Your task to perform on an android device: move an email to a new category in the gmail app Image 0: 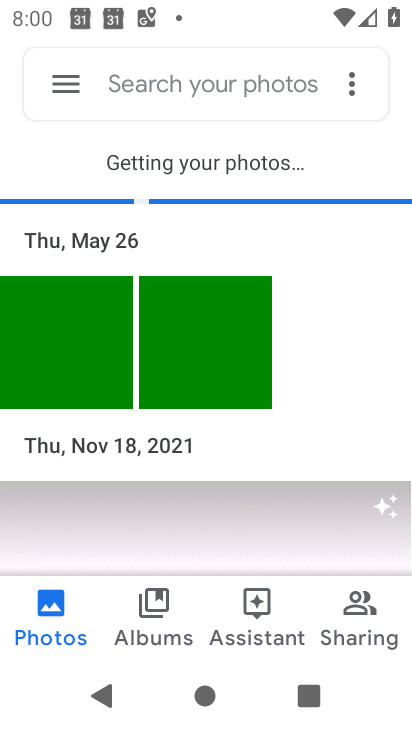
Step 0: press home button
Your task to perform on an android device: move an email to a new category in the gmail app Image 1: 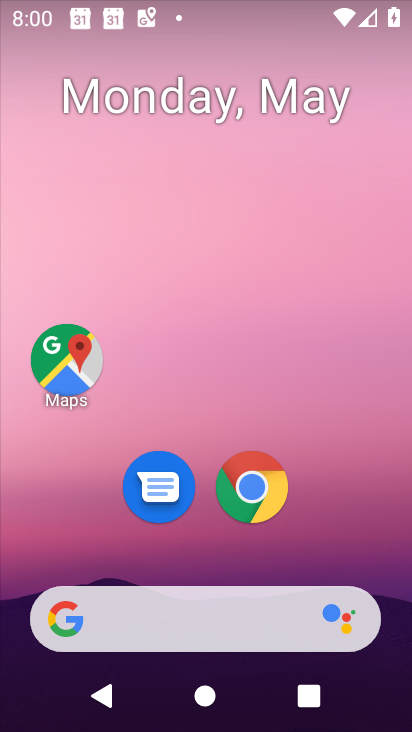
Step 1: drag from (384, 505) to (365, 107)
Your task to perform on an android device: move an email to a new category in the gmail app Image 2: 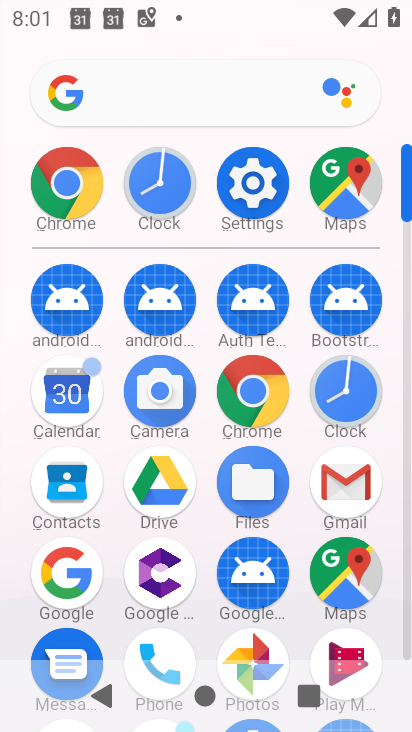
Step 2: click (367, 474)
Your task to perform on an android device: move an email to a new category in the gmail app Image 3: 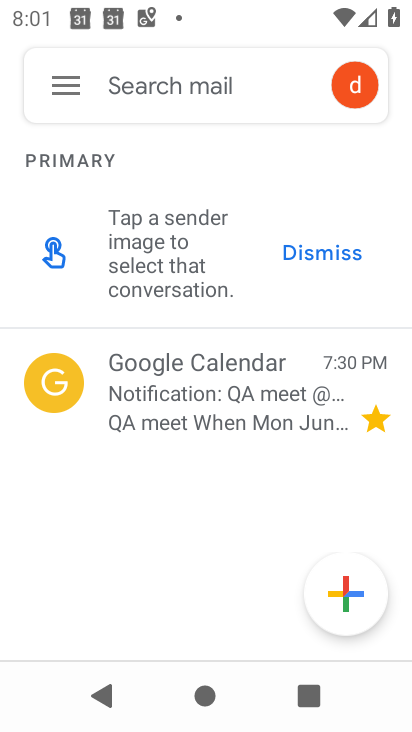
Step 3: click (174, 397)
Your task to perform on an android device: move an email to a new category in the gmail app Image 4: 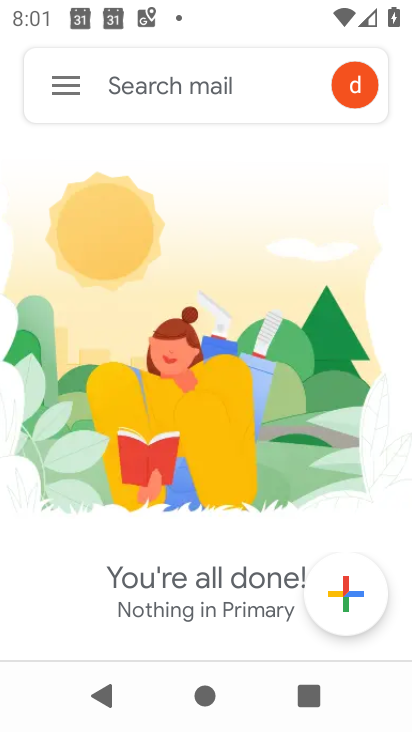
Step 4: click (71, 82)
Your task to perform on an android device: move an email to a new category in the gmail app Image 5: 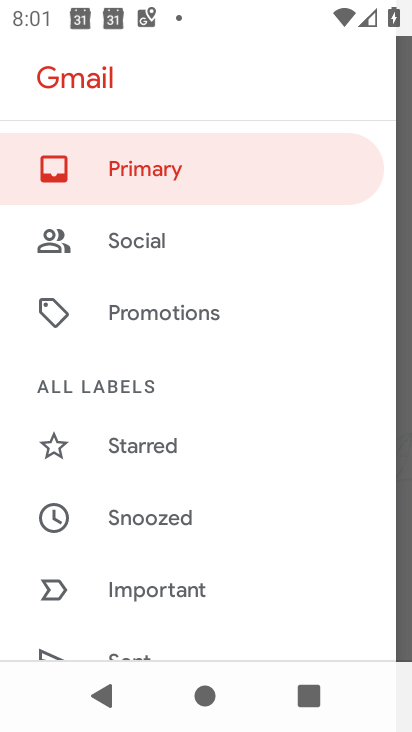
Step 5: drag from (302, 450) to (322, 267)
Your task to perform on an android device: move an email to a new category in the gmail app Image 6: 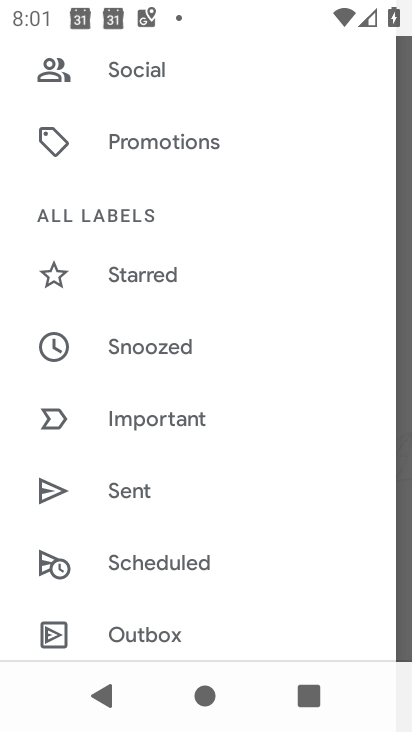
Step 6: drag from (300, 490) to (318, 216)
Your task to perform on an android device: move an email to a new category in the gmail app Image 7: 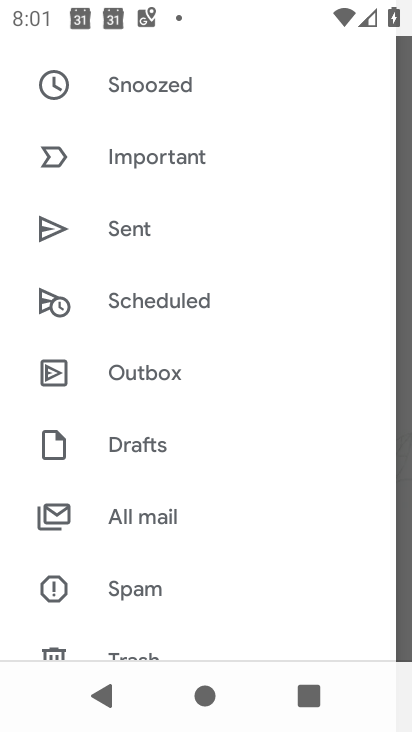
Step 7: drag from (325, 526) to (319, 250)
Your task to perform on an android device: move an email to a new category in the gmail app Image 8: 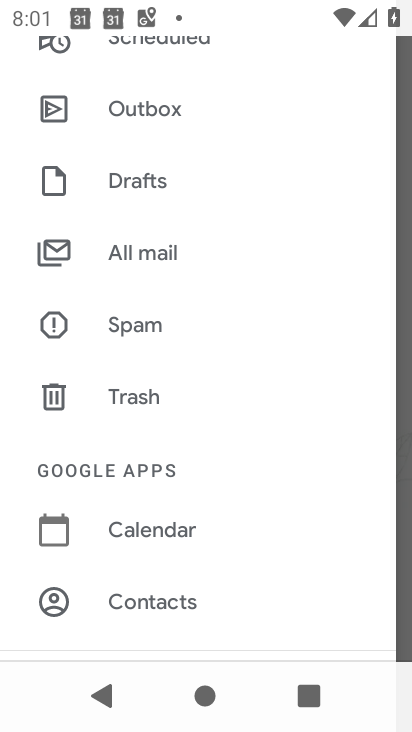
Step 8: drag from (319, 485) to (330, 233)
Your task to perform on an android device: move an email to a new category in the gmail app Image 9: 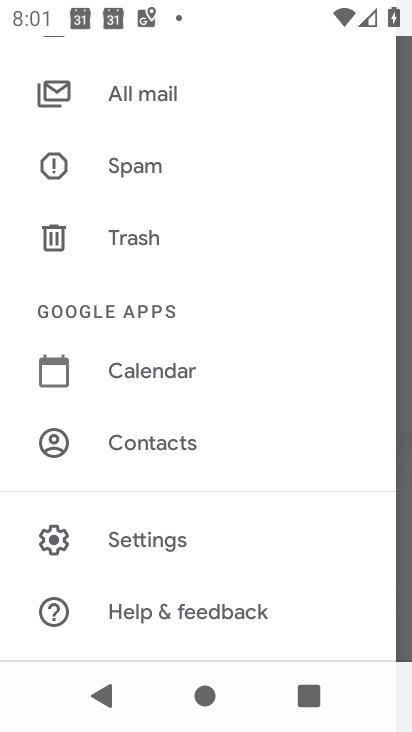
Step 9: drag from (321, 184) to (290, 414)
Your task to perform on an android device: move an email to a new category in the gmail app Image 10: 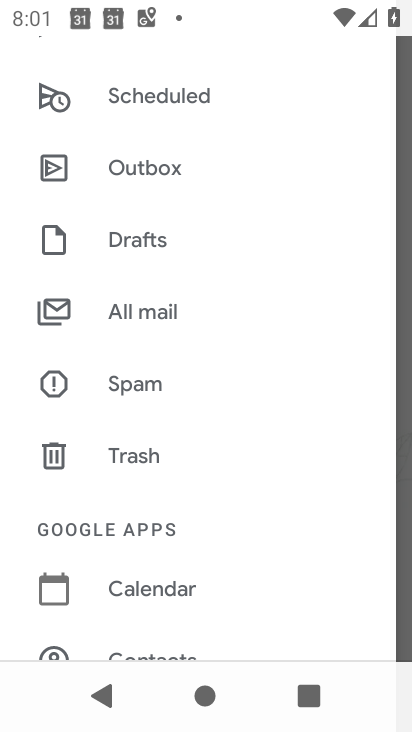
Step 10: drag from (278, 193) to (274, 401)
Your task to perform on an android device: move an email to a new category in the gmail app Image 11: 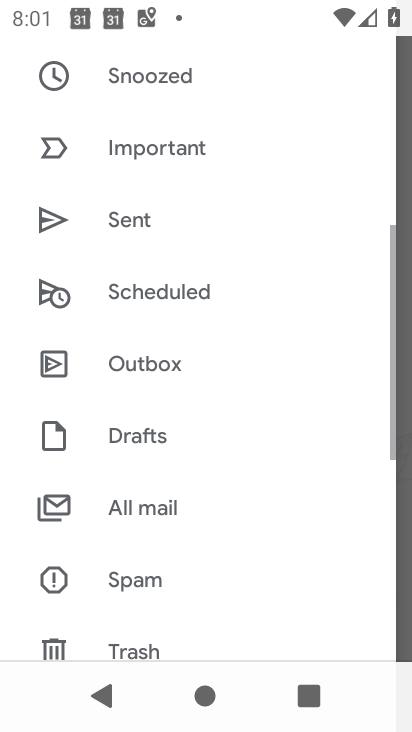
Step 11: drag from (280, 154) to (285, 364)
Your task to perform on an android device: move an email to a new category in the gmail app Image 12: 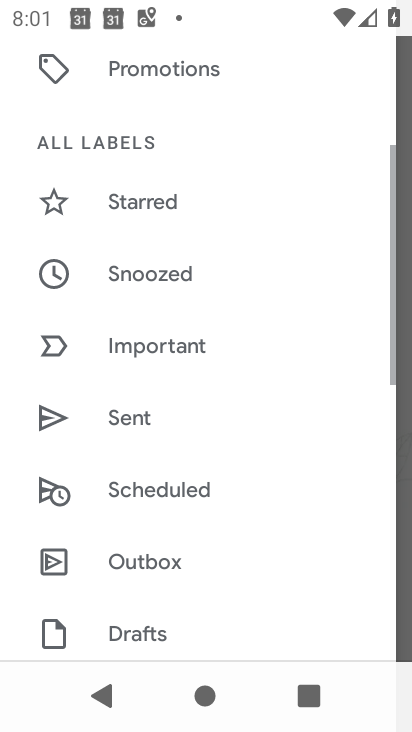
Step 12: drag from (305, 117) to (325, 342)
Your task to perform on an android device: move an email to a new category in the gmail app Image 13: 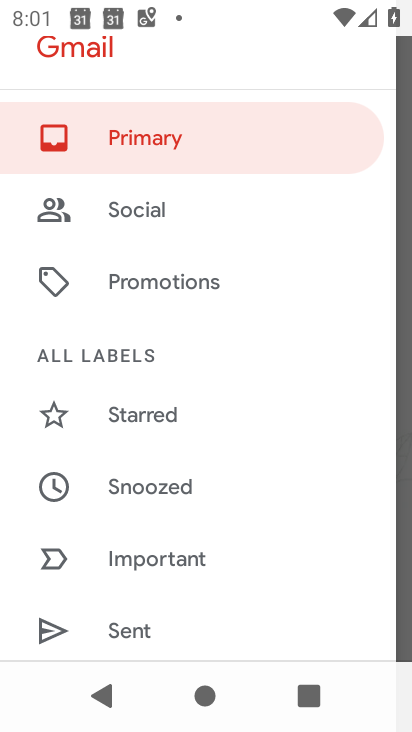
Step 13: click (197, 167)
Your task to perform on an android device: move an email to a new category in the gmail app Image 14: 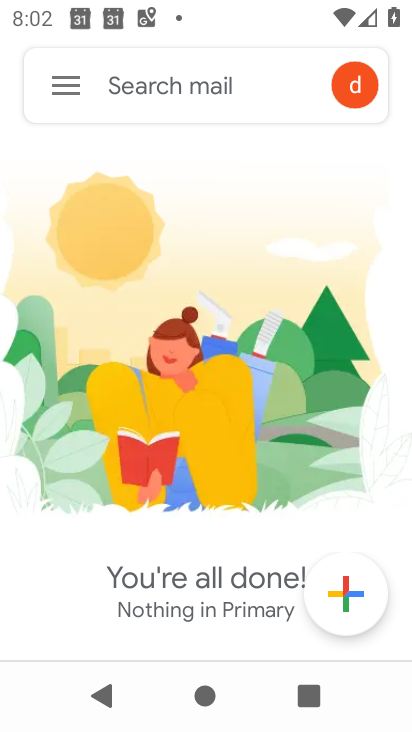
Step 14: task complete